Your task to perform on an android device: open app "Lyft - Rideshare, Bikes, Scooters & Transit" (install if not already installed), go to login, and select forgot password Image 0: 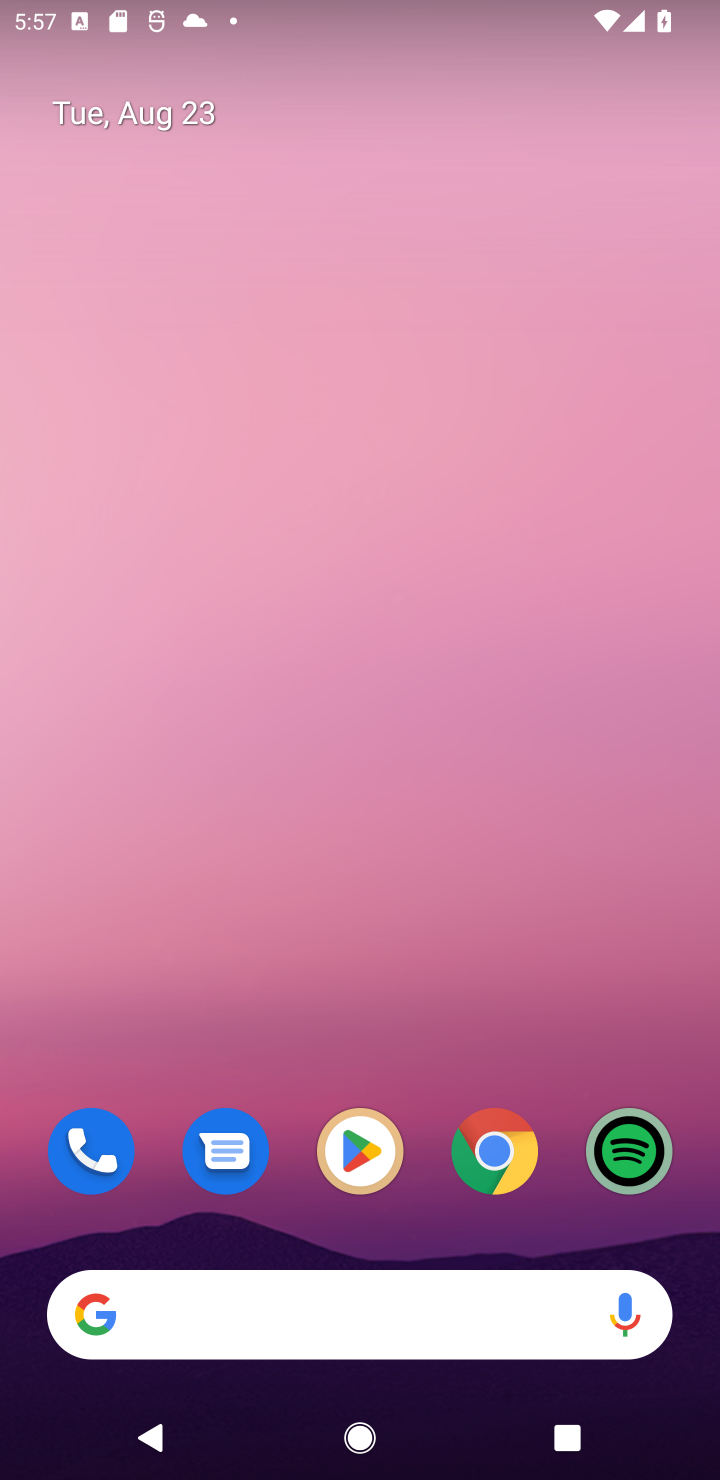
Step 0: press home button
Your task to perform on an android device: open app "Lyft - Rideshare, Bikes, Scooters & Transit" (install if not already installed), go to login, and select forgot password Image 1: 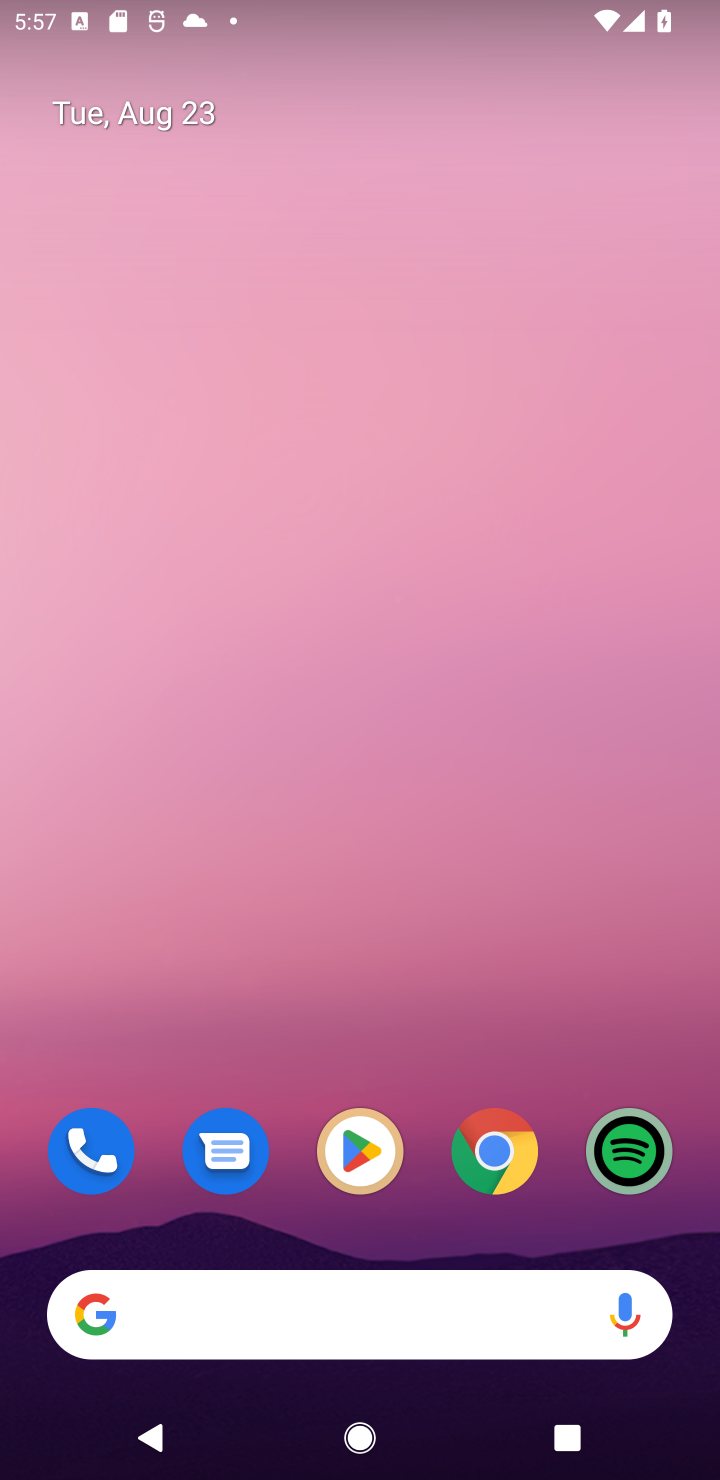
Step 1: click (356, 1145)
Your task to perform on an android device: open app "Lyft - Rideshare, Bikes, Scooters & Transit" (install if not already installed), go to login, and select forgot password Image 2: 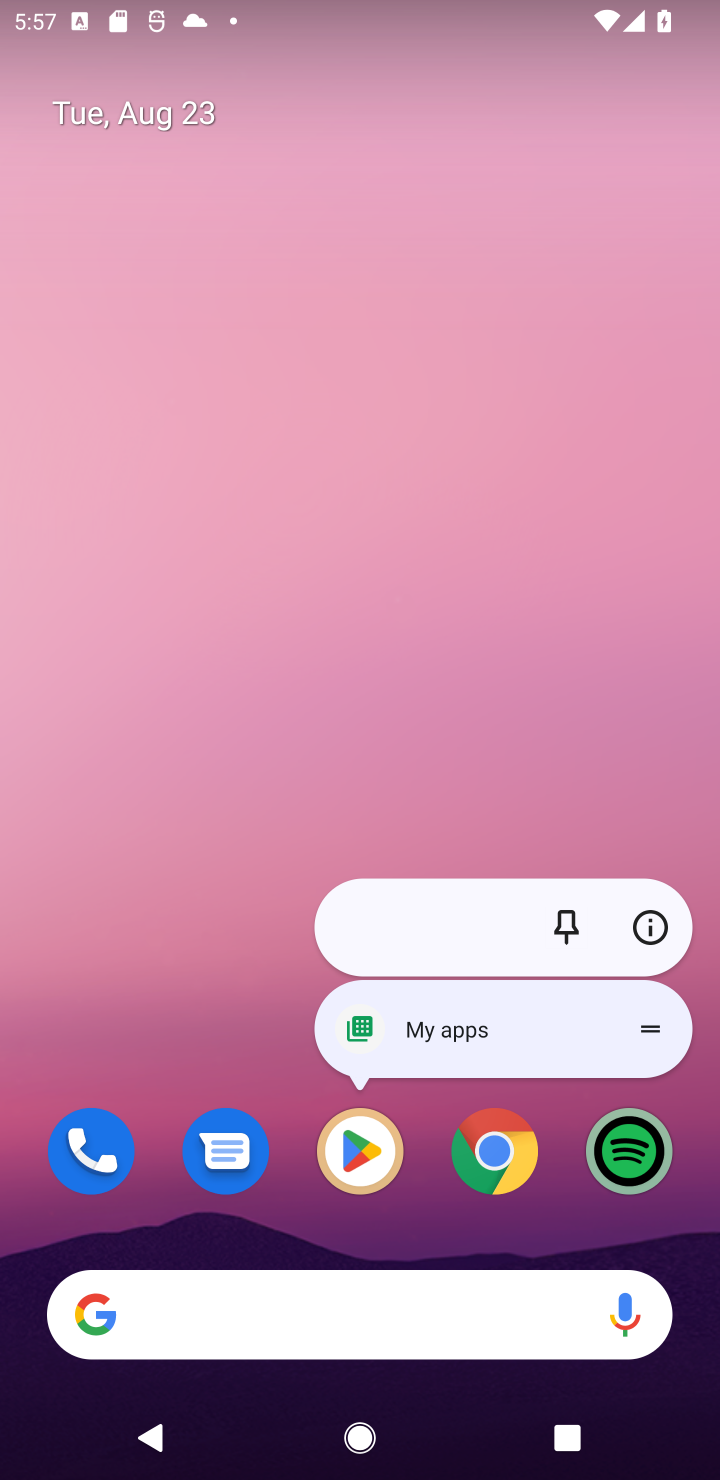
Step 2: click (349, 1168)
Your task to perform on an android device: open app "Lyft - Rideshare, Bikes, Scooters & Transit" (install if not already installed), go to login, and select forgot password Image 3: 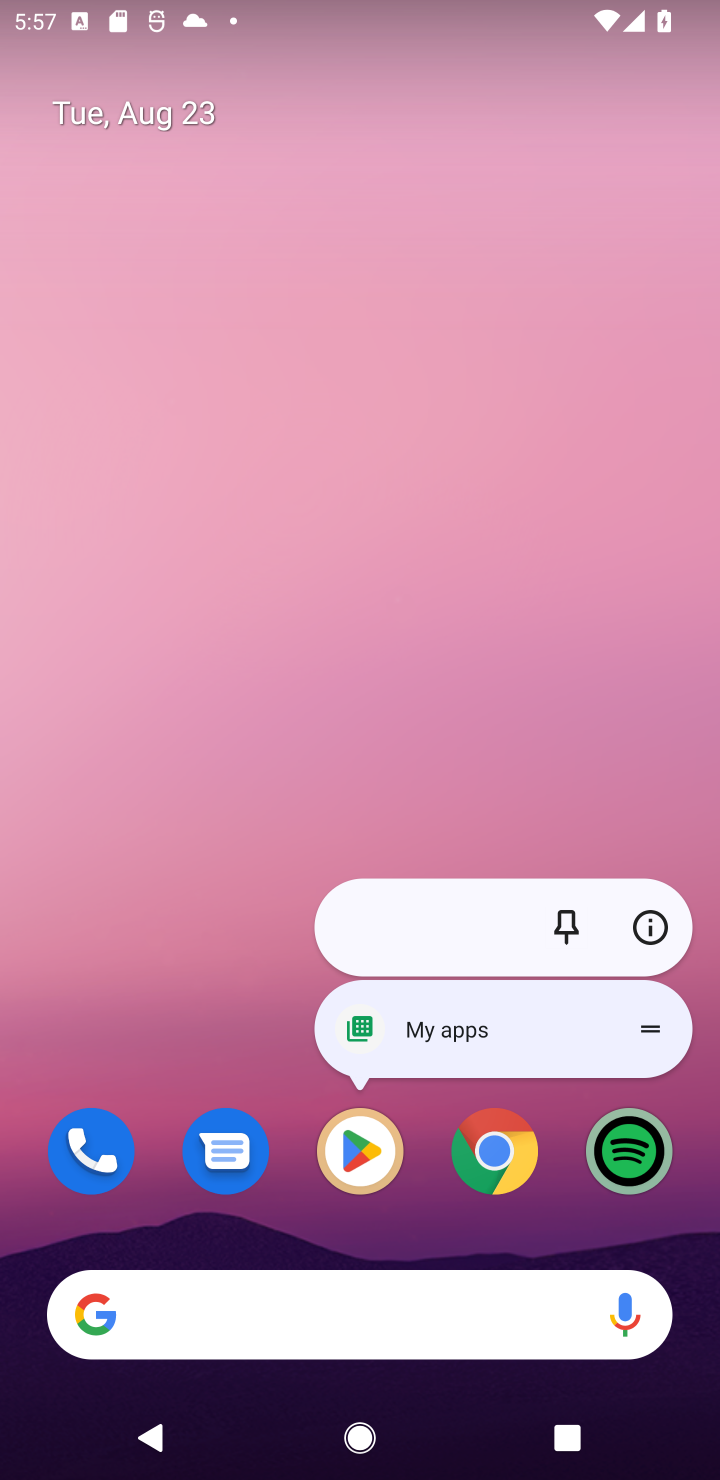
Step 3: click (349, 1172)
Your task to perform on an android device: open app "Lyft - Rideshare, Bikes, Scooters & Transit" (install if not already installed), go to login, and select forgot password Image 4: 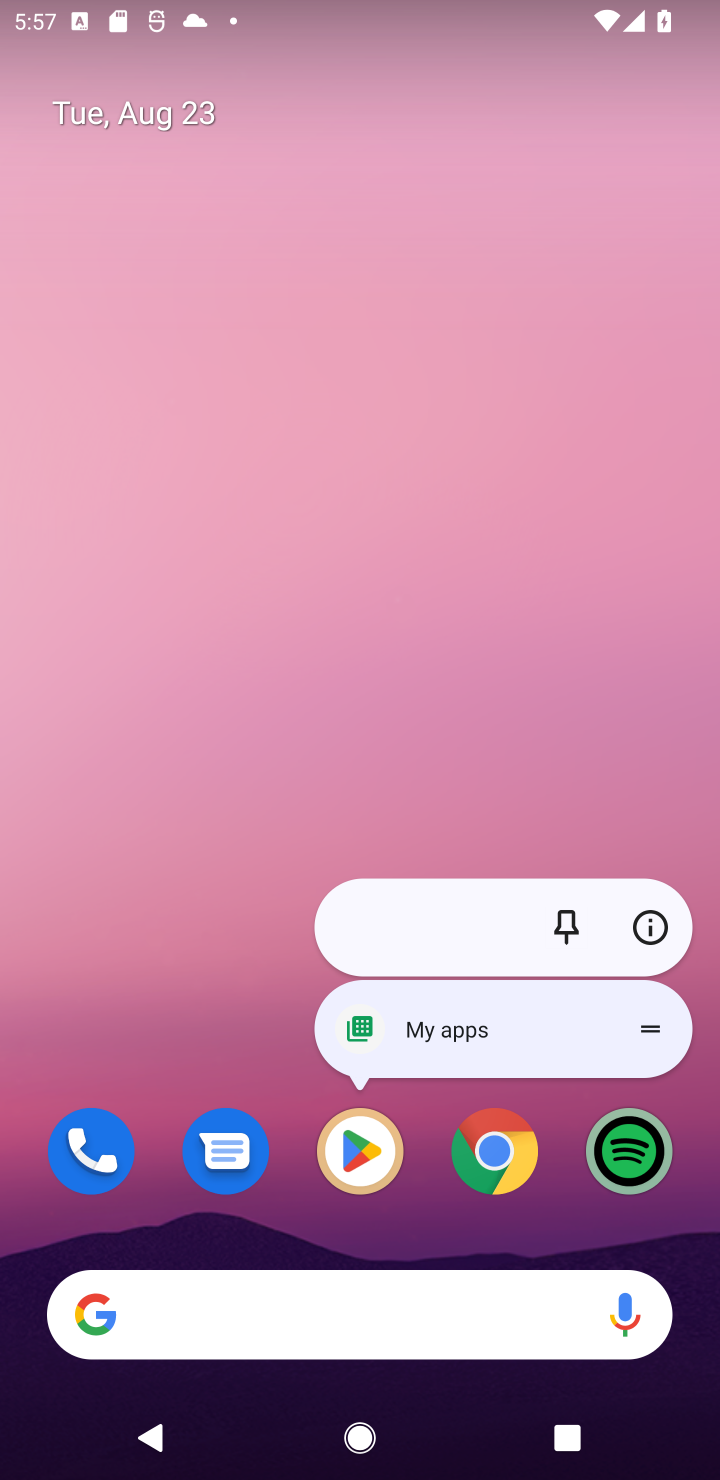
Step 4: click (364, 1148)
Your task to perform on an android device: open app "Lyft - Rideshare, Bikes, Scooters & Transit" (install if not already installed), go to login, and select forgot password Image 5: 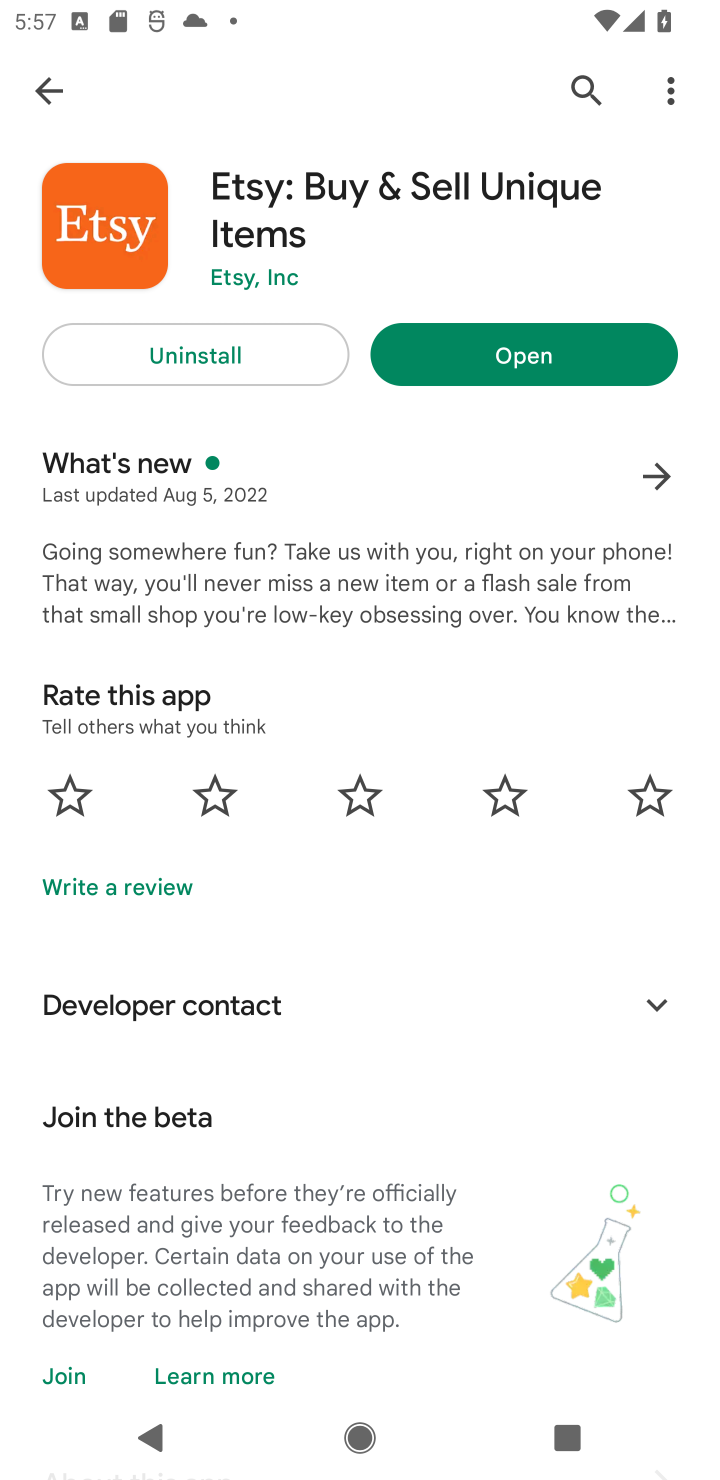
Step 5: click (576, 77)
Your task to perform on an android device: open app "Lyft - Rideshare, Bikes, Scooters & Transit" (install if not already installed), go to login, and select forgot password Image 6: 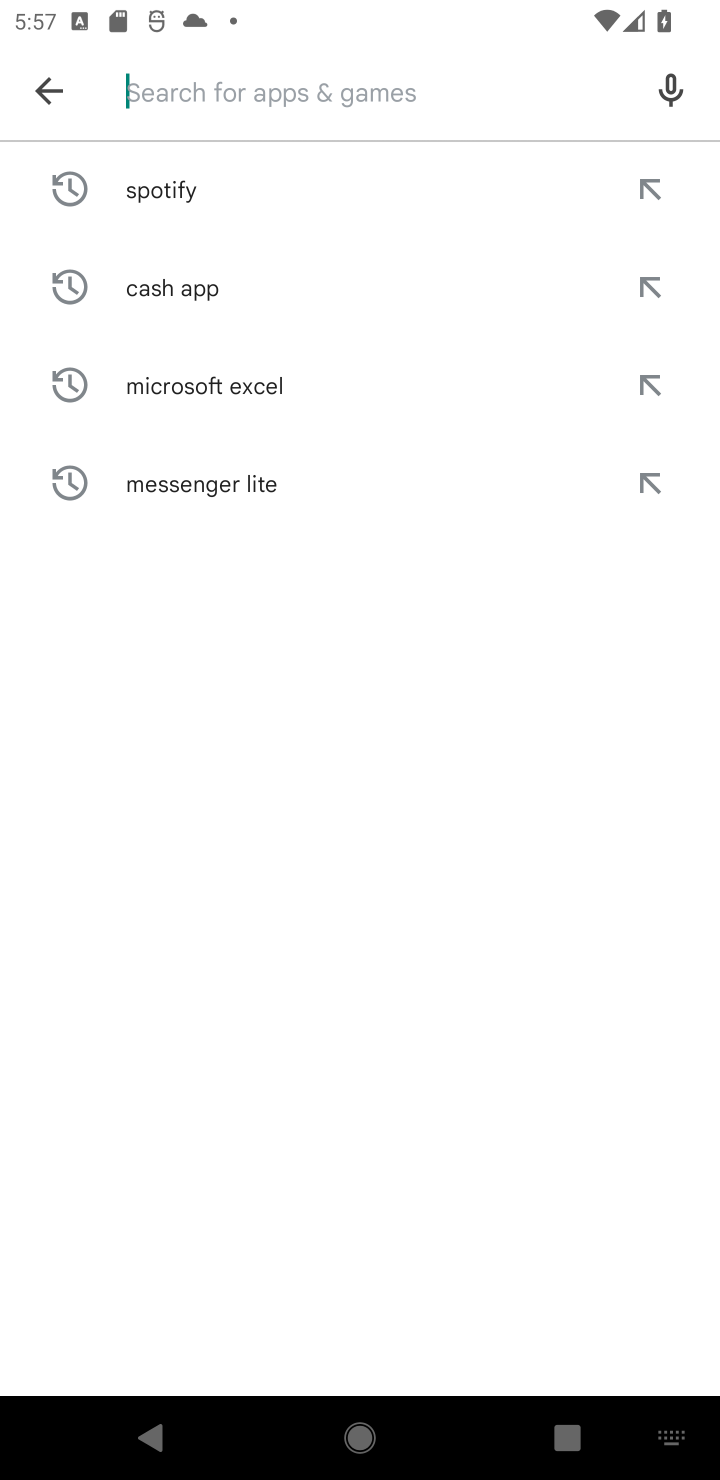
Step 6: type "Lyft - Rideshare, Bikes, Scooters & Transit"
Your task to perform on an android device: open app "Lyft - Rideshare, Bikes, Scooters & Transit" (install if not already installed), go to login, and select forgot password Image 7: 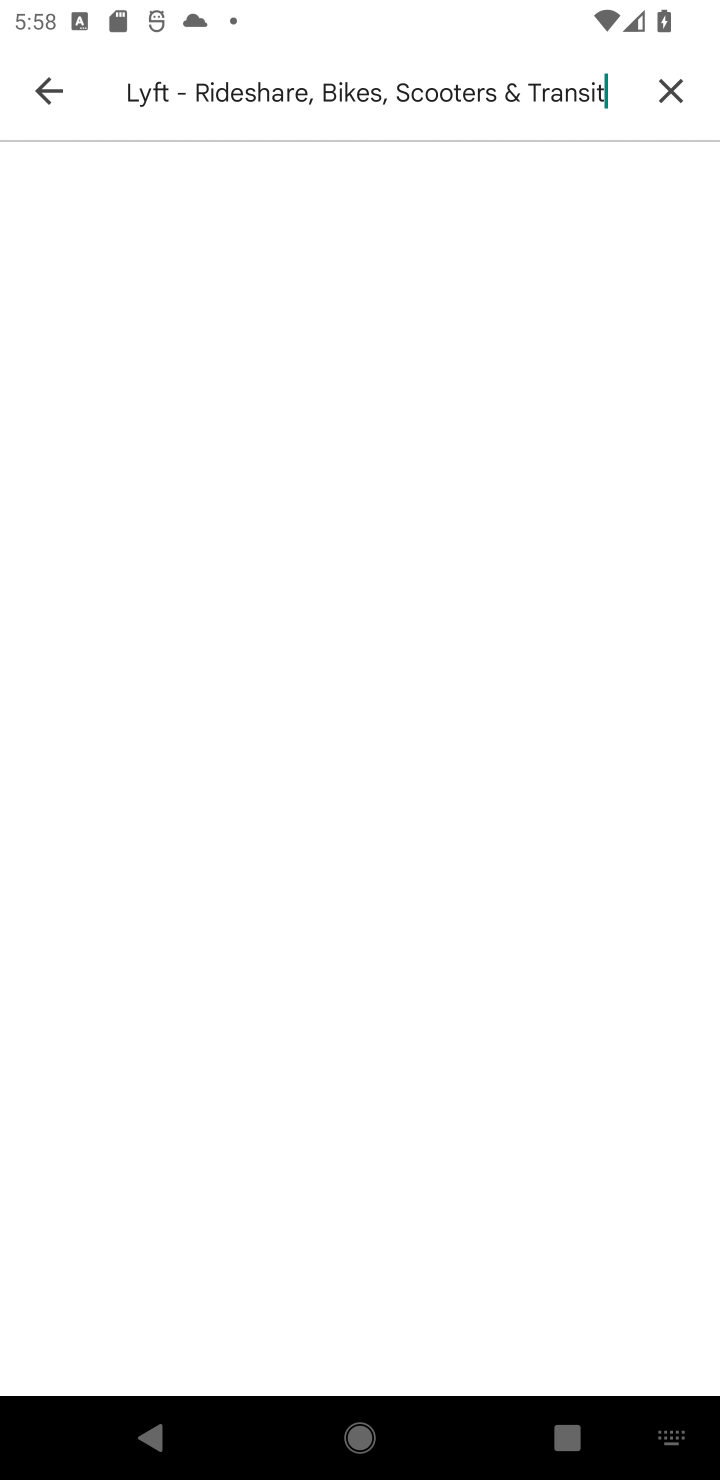
Step 7: task complete